Your task to perform on an android device: Open Chrome and go to the settings page Image 0: 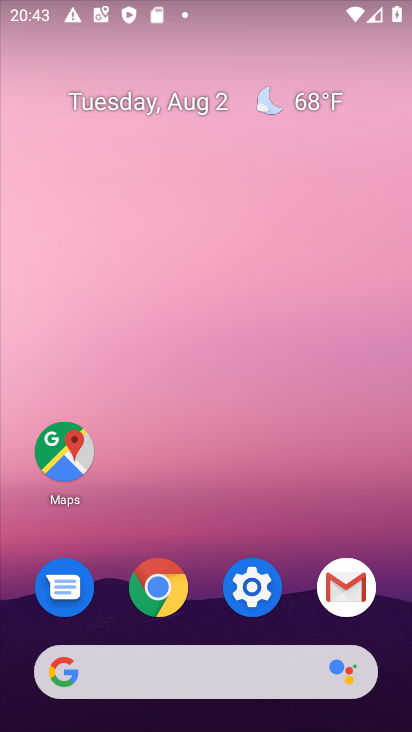
Step 0: click (166, 577)
Your task to perform on an android device: Open Chrome and go to the settings page Image 1: 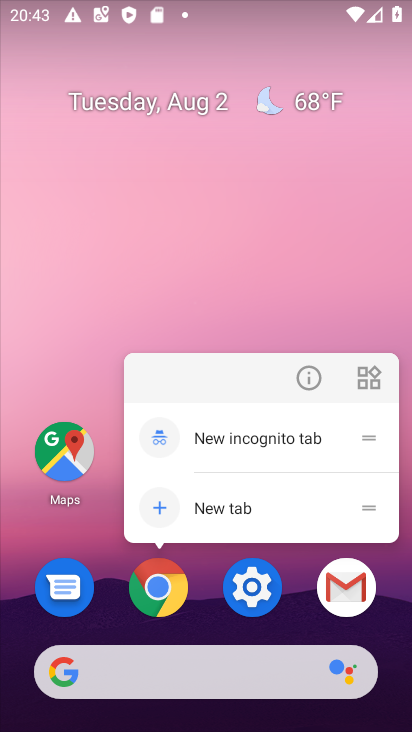
Step 1: click (165, 574)
Your task to perform on an android device: Open Chrome and go to the settings page Image 2: 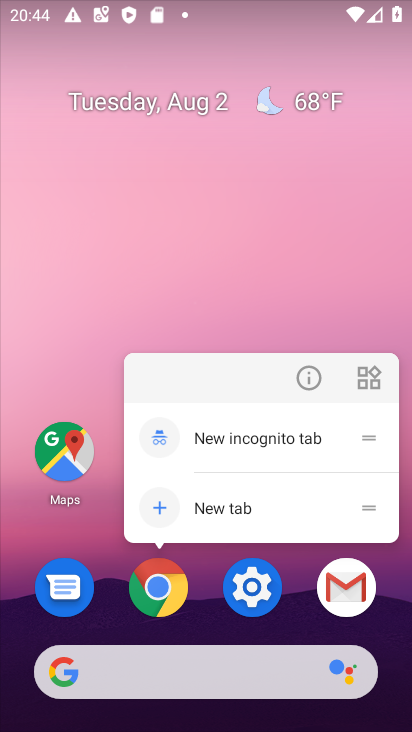
Step 2: click (158, 590)
Your task to perform on an android device: Open Chrome and go to the settings page Image 3: 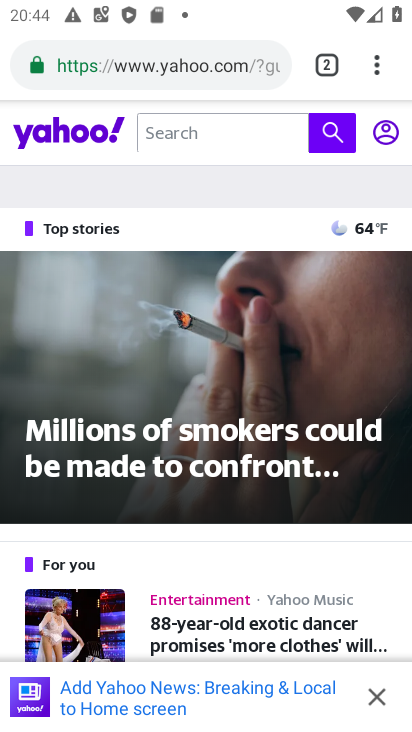
Step 3: click (371, 67)
Your task to perform on an android device: Open Chrome and go to the settings page Image 4: 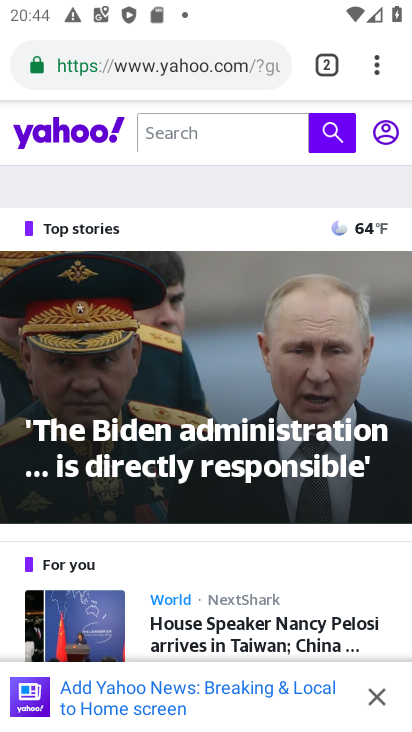
Step 4: click (380, 70)
Your task to perform on an android device: Open Chrome and go to the settings page Image 5: 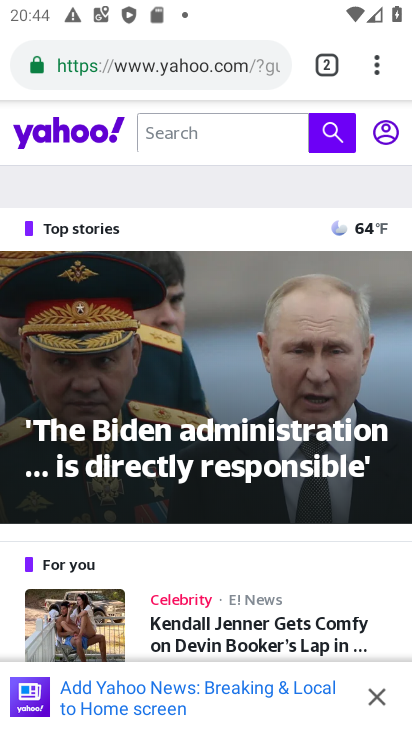
Step 5: click (375, 67)
Your task to perform on an android device: Open Chrome and go to the settings page Image 6: 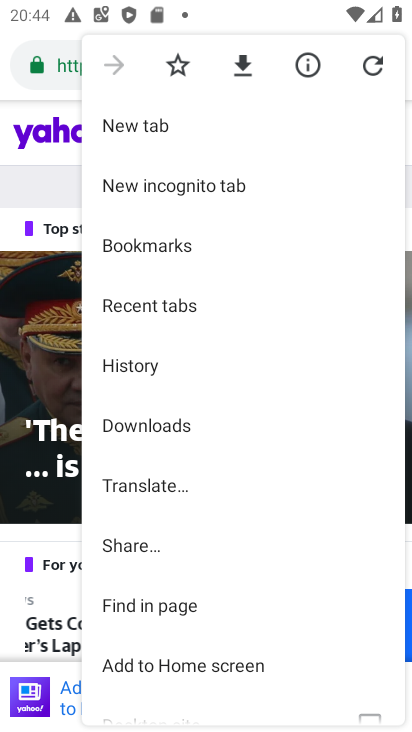
Step 6: drag from (194, 611) to (204, 277)
Your task to perform on an android device: Open Chrome and go to the settings page Image 7: 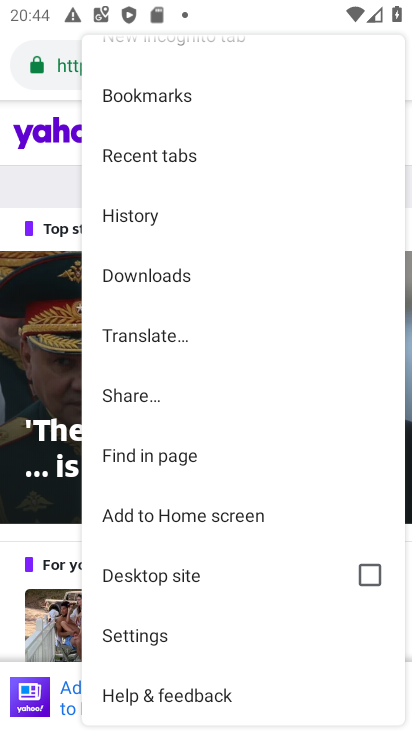
Step 7: click (157, 627)
Your task to perform on an android device: Open Chrome and go to the settings page Image 8: 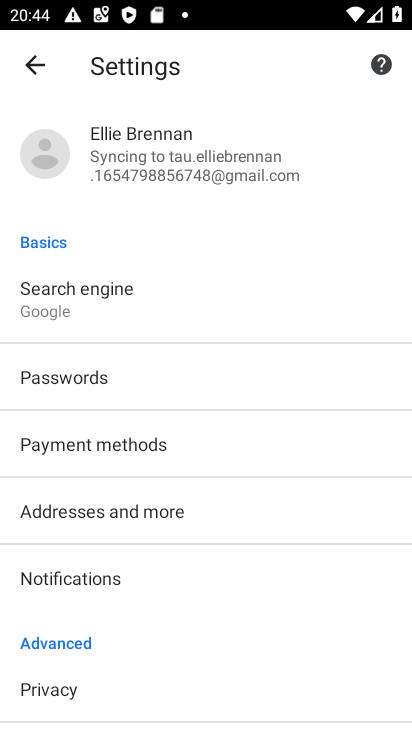
Step 8: task complete